Your task to perform on an android device: toggle notification dots Image 0: 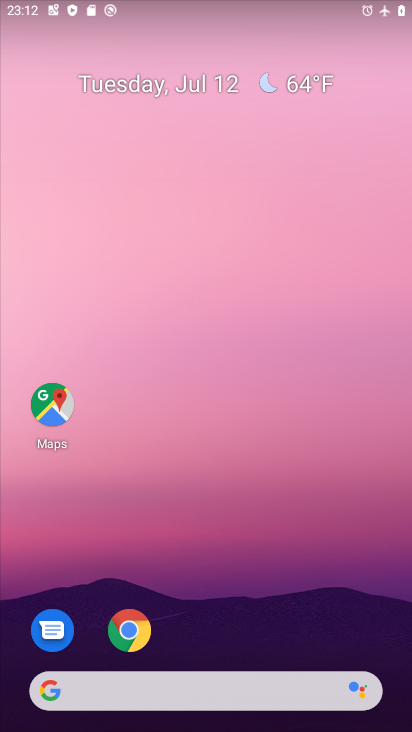
Step 0: drag from (239, 658) to (234, 195)
Your task to perform on an android device: toggle notification dots Image 1: 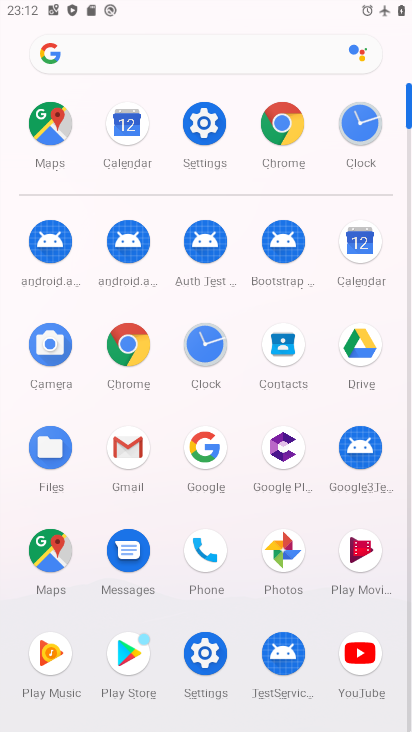
Step 1: click (177, 112)
Your task to perform on an android device: toggle notification dots Image 2: 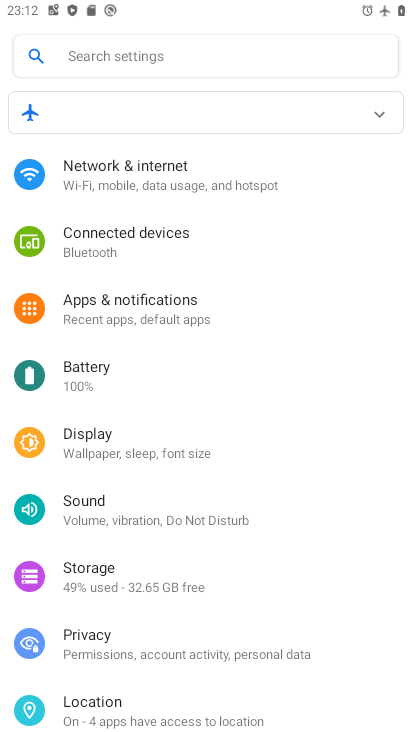
Step 2: click (114, 323)
Your task to perform on an android device: toggle notification dots Image 3: 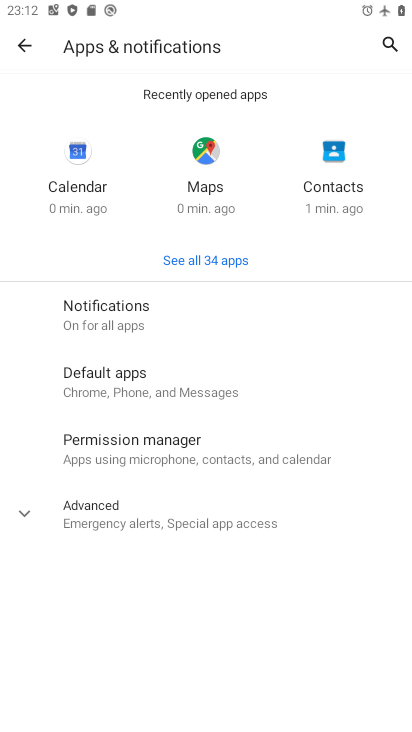
Step 3: click (117, 320)
Your task to perform on an android device: toggle notification dots Image 4: 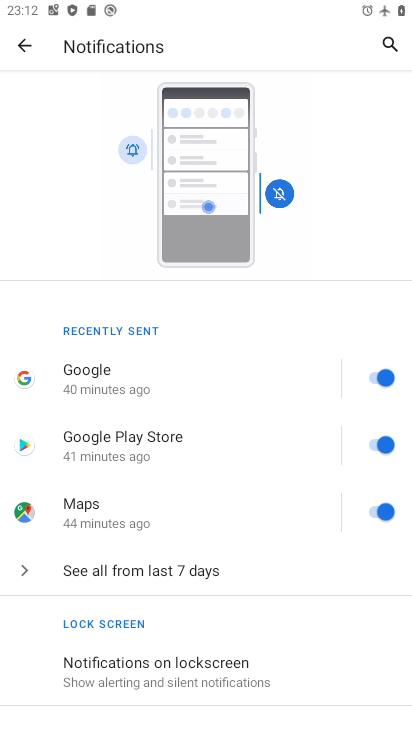
Step 4: drag from (186, 675) to (180, 252)
Your task to perform on an android device: toggle notification dots Image 5: 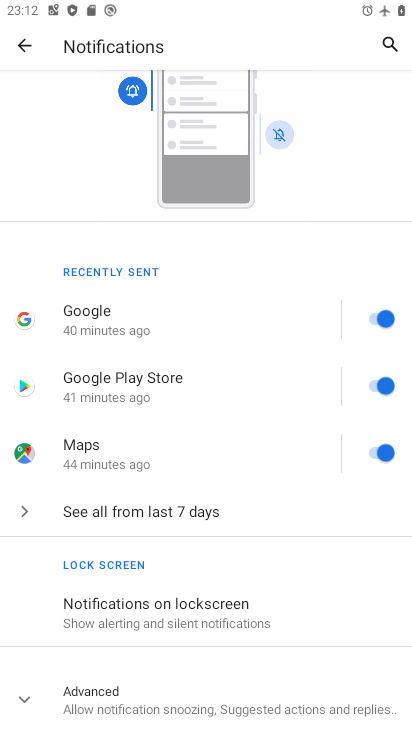
Step 5: click (201, 702)
Your task to perform on an android device: toggle notification dots Image 6: 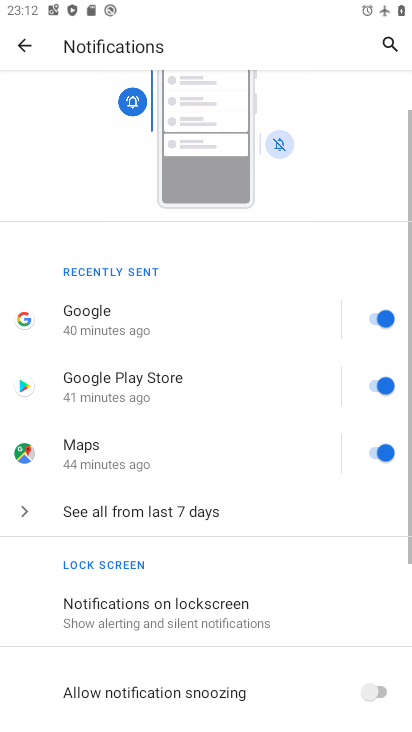
Step 6: drag from (202, 698) to (190, 84)
Your task to perform on an android device: toggle notification dots Image 7: 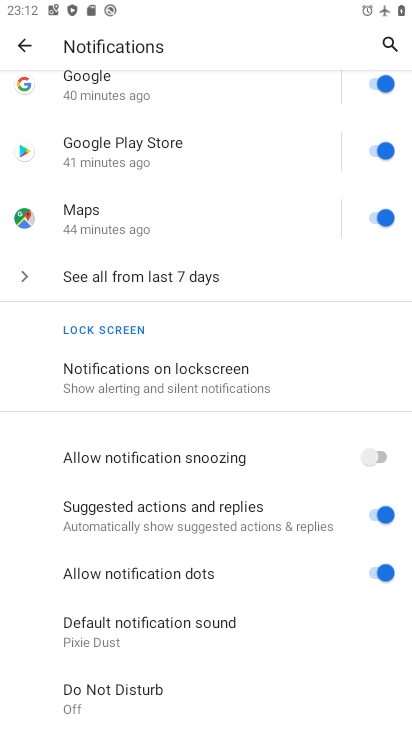
Step 7: click (396, 573)
Your task to perform on an android device: toggle notification dots Image 8: 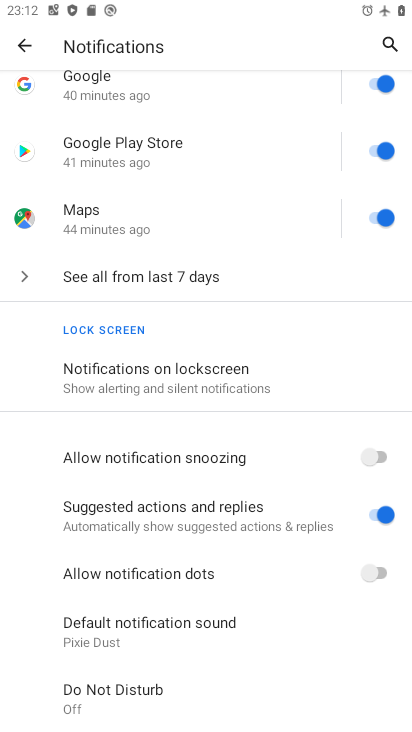
Step 8: task complete